Your task to perform on an android device: Open settings on Google Maps Image 0: 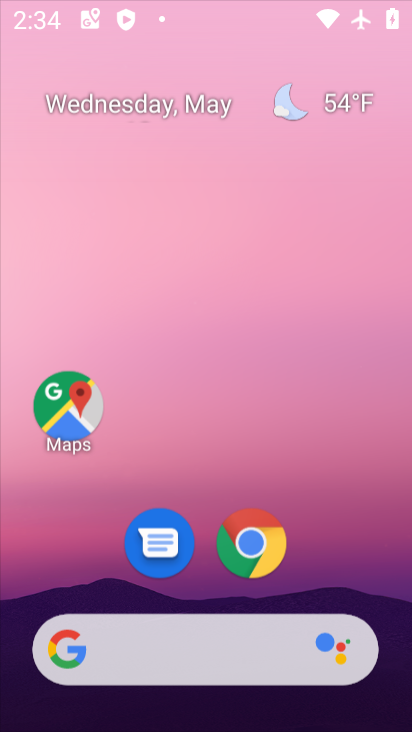
Step 0: drag from (349, 569) to (226, 123)
Your task to perform on an android device: Open settings on Google Maps Image 1: 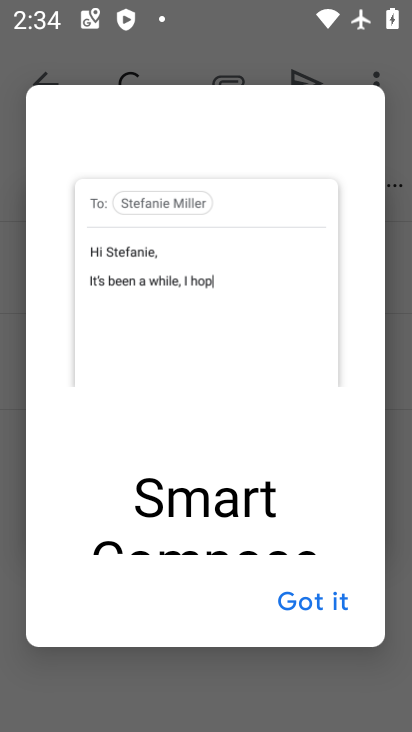
Step 1: press home button
Your task to perform on an android device: Open settings on Google Maps Image 2: 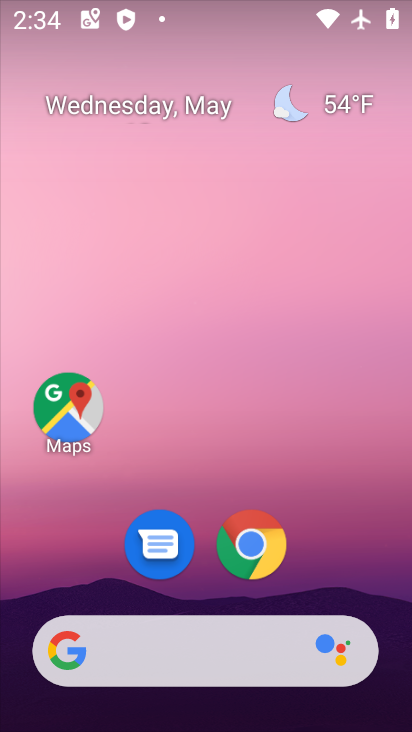
Step 2: click (61, 425)
Your task to perform on an android device: Open settings on Google Maps Image 3: 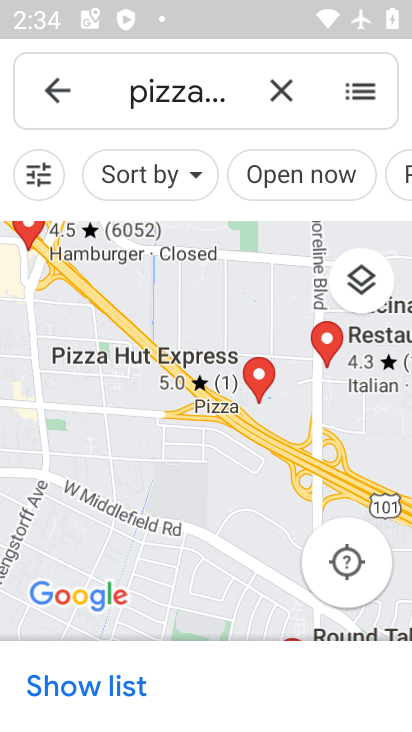
Step 3: click (63, 82)
Your task to perform on an android device: Open settings on Google Maps Image 4: 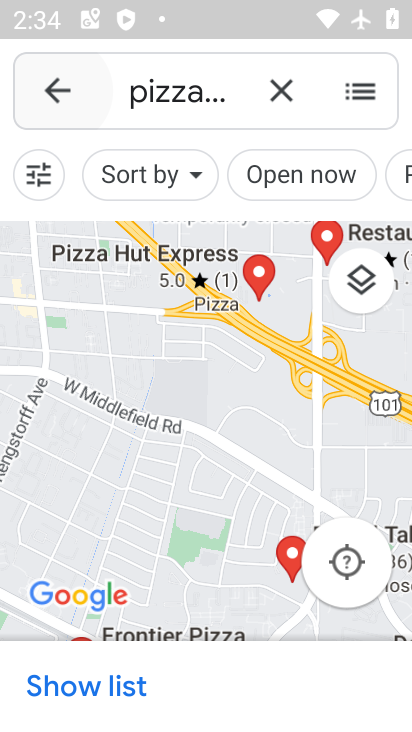
Step 4: click (63, 82)
Your task to perform on an android device: Open settings on Google Maps Image 5: 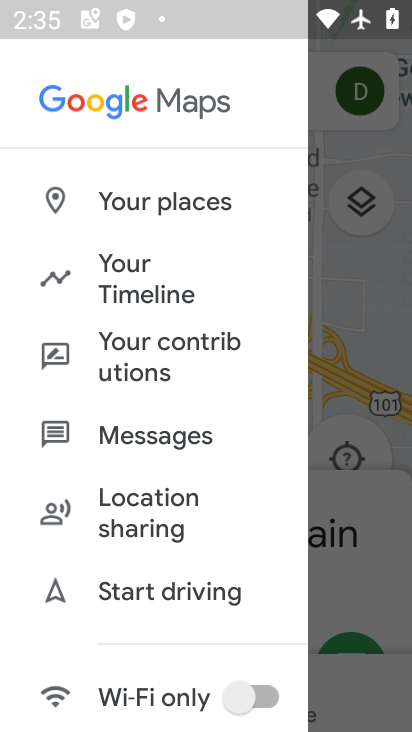
Step 5: drag from (148, 613) to (91, 367)
Your task to perform on an android device: Open settings on Google Maps Image 6: 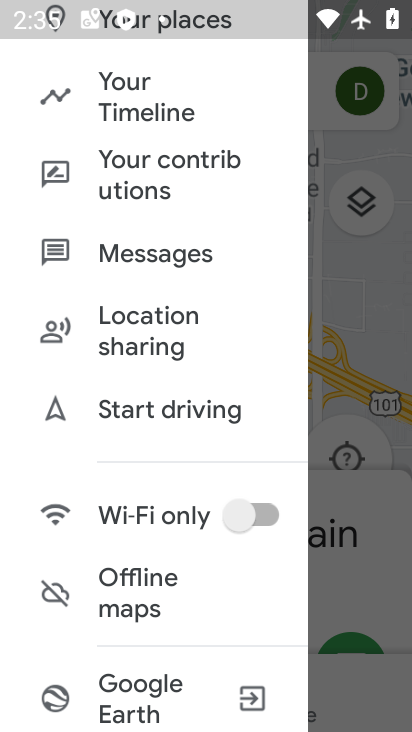
Step 6: drag from (159, 658) to (110, 458)
Your task to perform on an android device: Open settings on Google Maps Image 7: 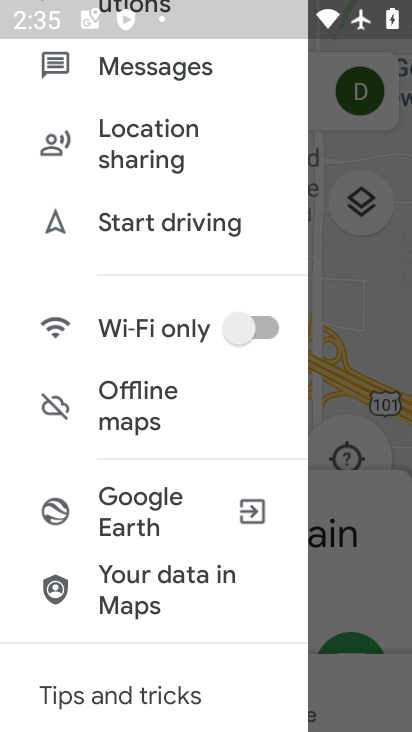
Step 7: drag from (146, 632) to (106, 451)
Your task to perform on an android device: Open settings on Google Maps Image 8: 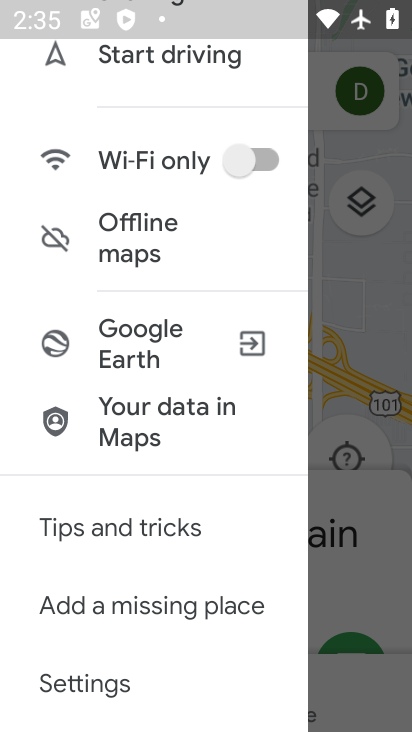
Step 8: click (155, 671)
Your task to perform on an android device: Open settings on Google Maps Image 9: 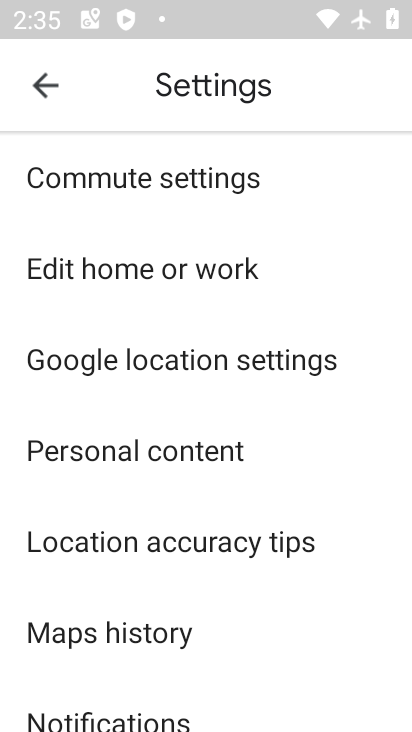
Step 9: task complete